Your task to perform on an android device: View the shopping cart on costco. Search for "razer huntsman" on costco, select the first entry, add it to the cart, then select checkout. Image 0: 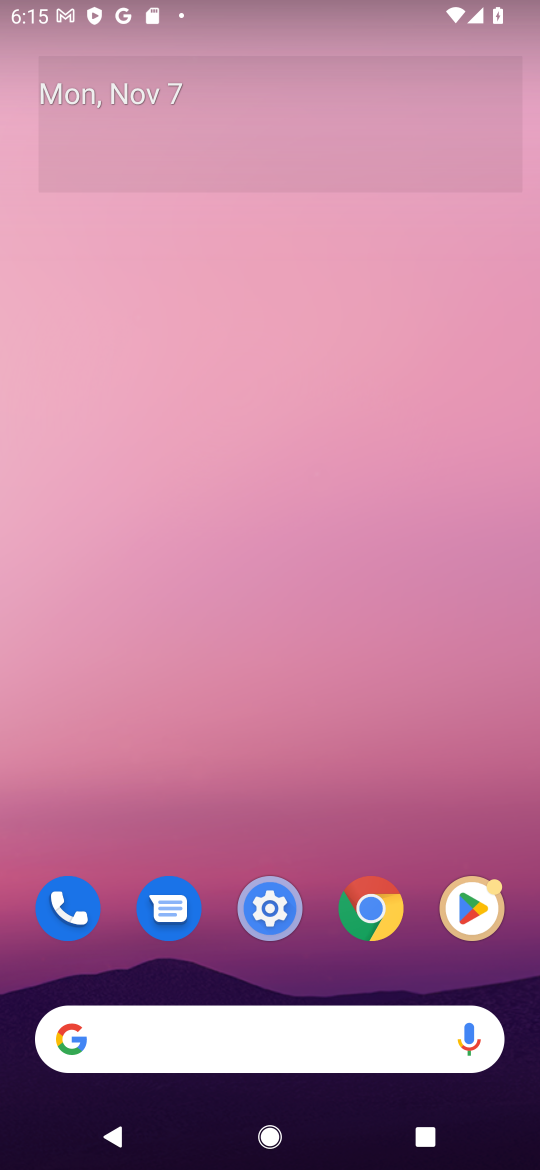
Step 0: click (211, 1030)
Your task to perform on an android device: View the shopping cart on costco. Search for "razer huntsman" on costco, select the first entry, add it to the cart, then select checkout. Image 1: 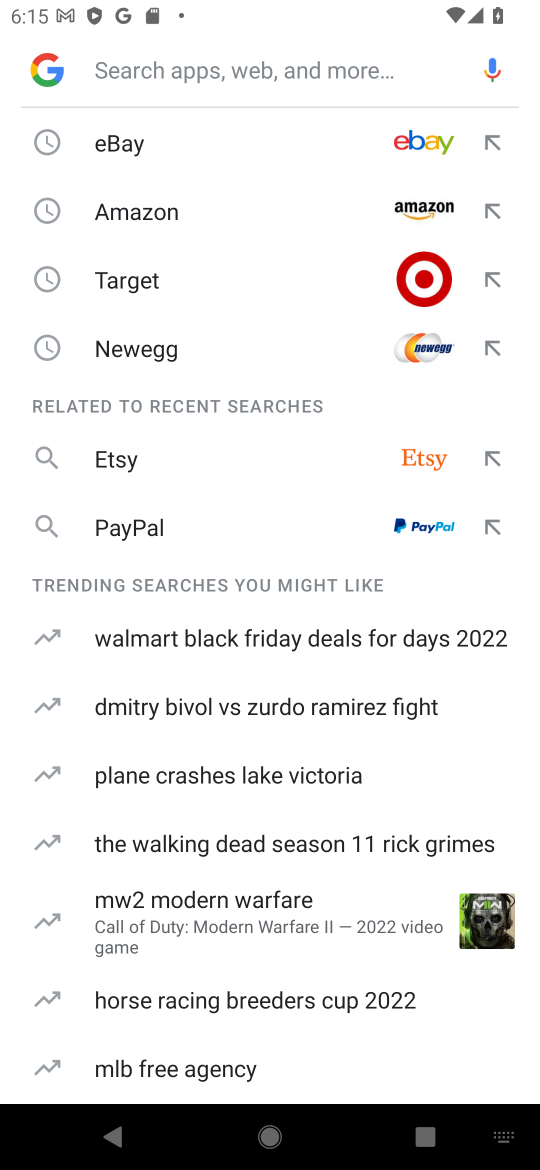
Step 1: type "costco"
Your task to perform on an android device: View the shopping cart on costco. Search for "razer huntsman" on costco, select the first entry, add it to the cart, then select checkout. Image 2: 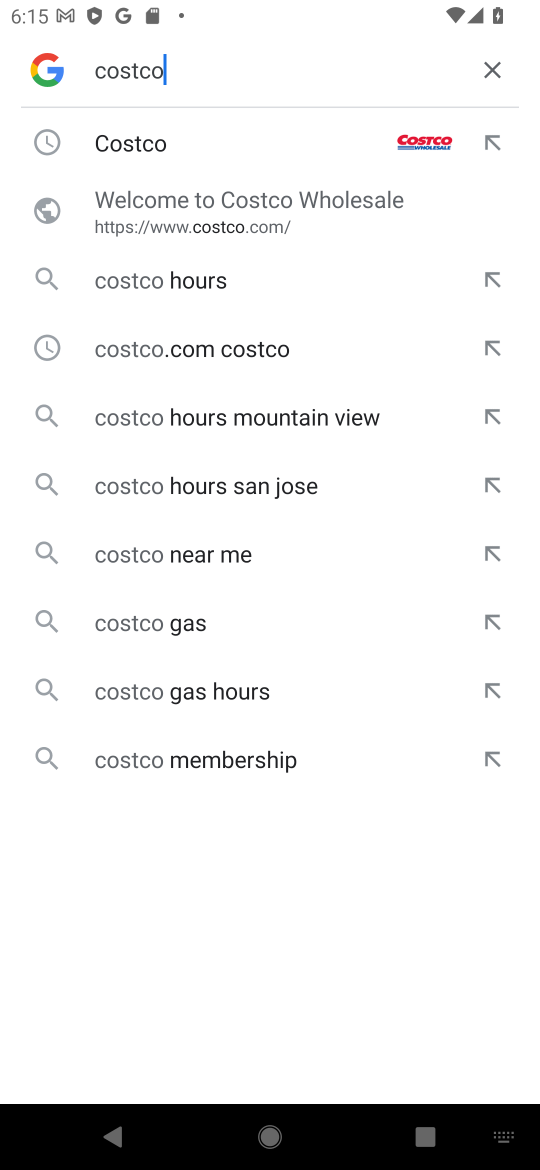
Step 2: click (337, 158)
Your task to perform on an android device: View the shopping cart on costco. Search for "razer huntsman" on costco, select the first entry, add it to the cart, then select checkout. Image 3: 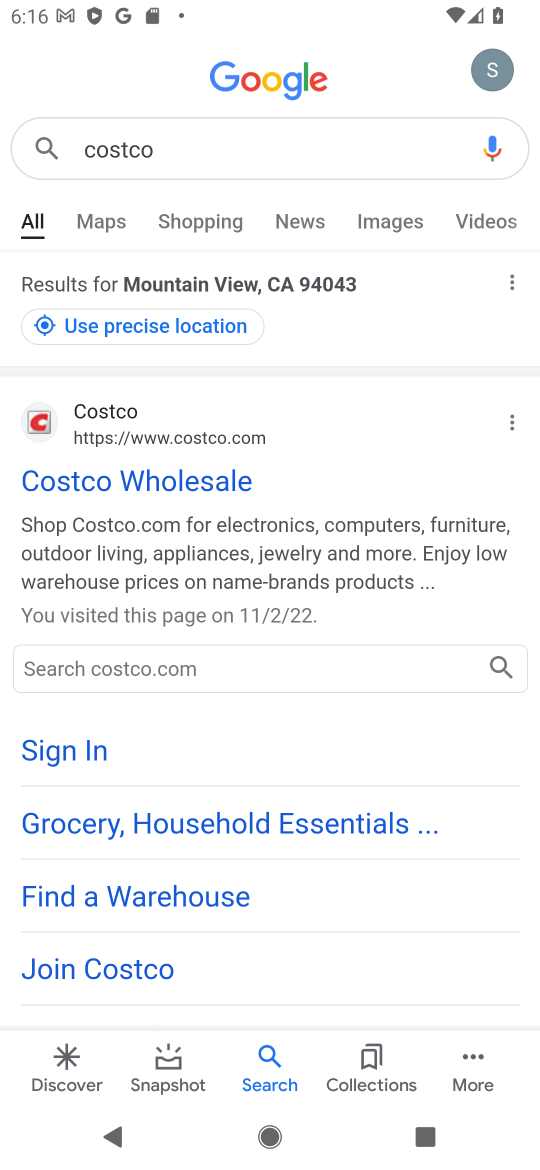
Step 3: click (183, 466)
Your task to perform on an android device: View the shopping cart on costco. Search for "razer huntsman" on costco, select the first entry, add it to the cart, then select checkout. Image 4: 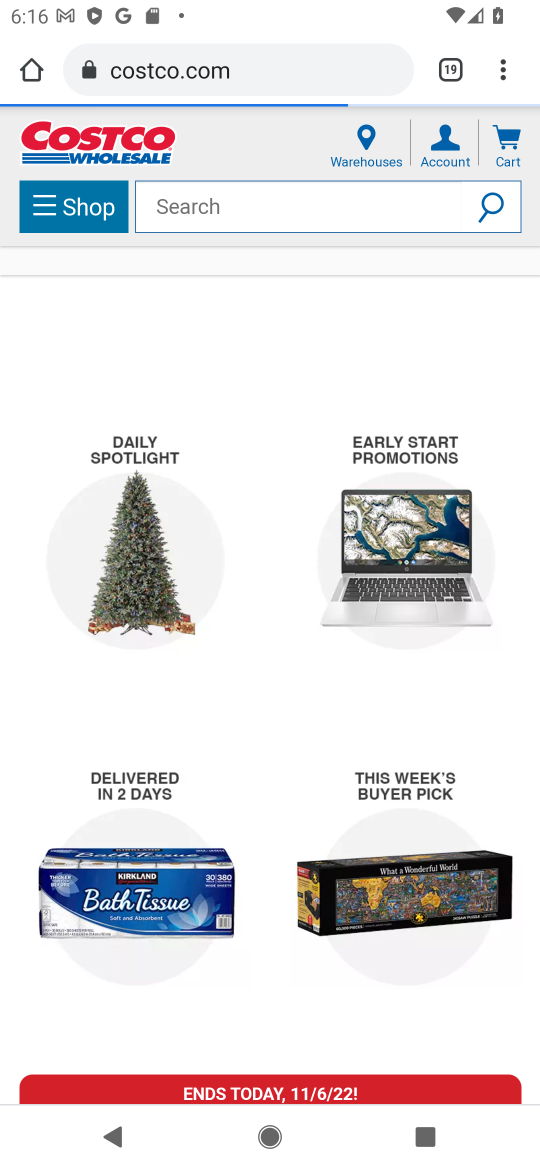
Step 4: task complete